Your task to perform on an android device: Open Yahoo.com Image 0: 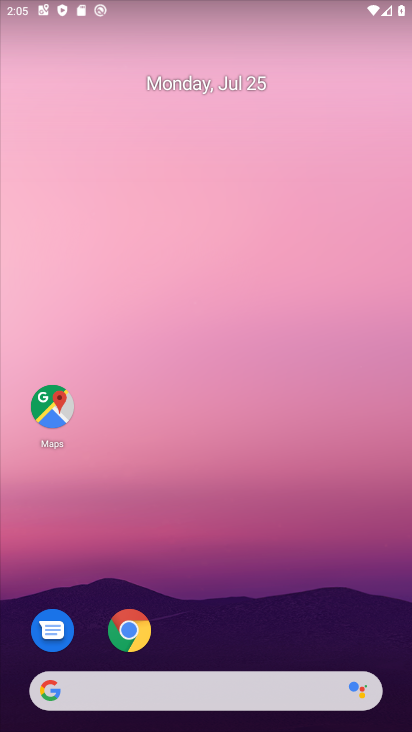
Step 0: click (140, 656)
Your task to perform on an android device: Open Yahoo.com Image 1: 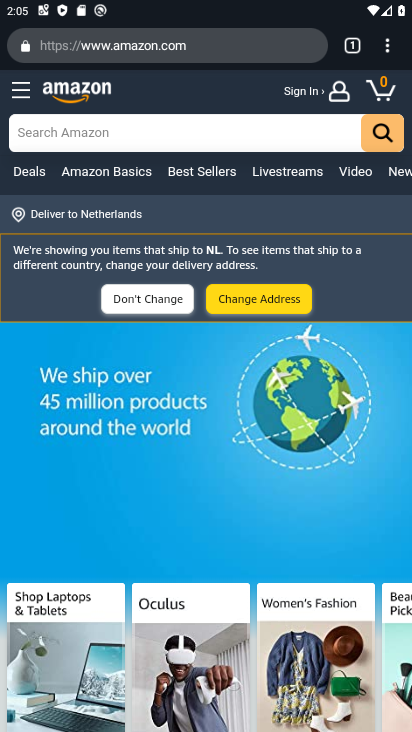
Step 1: click (291, 50)
Your task to perform on an android device: Open Yahoo.com Image 2: 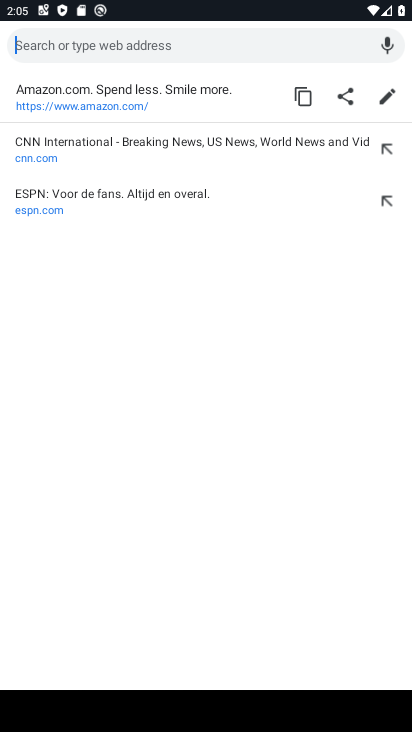
Step 2: type "yahoo.com"
Your task to perform on an android device: Open Yahoo.com Image 3: 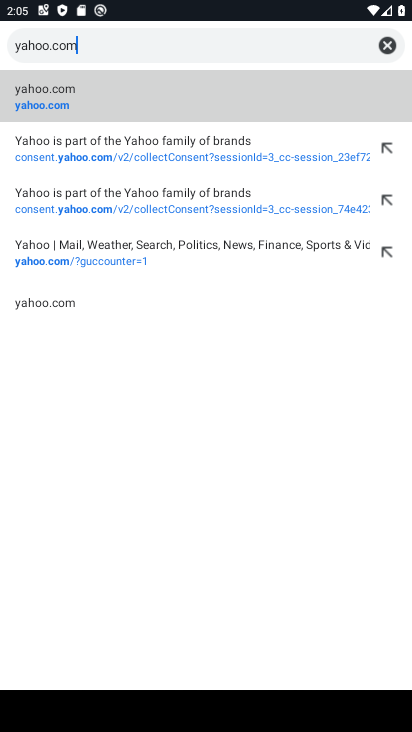
Step 3: click (177, 113)
Your task to perform on an android device: Open Yahoo.com Image 4: 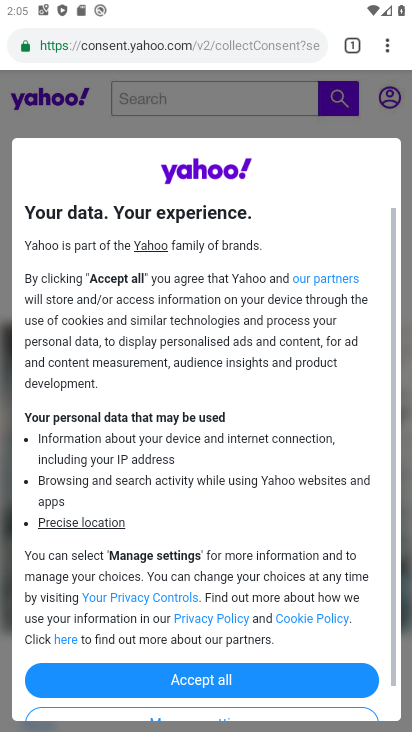
Step 4: task complete